Your task to perform on an android device: Go to Yahoo.com Image 0: 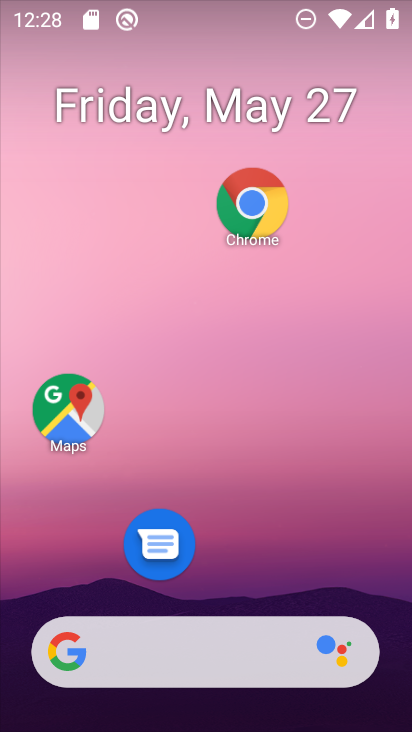
Step 0: drag from (220, 556) to (166, 86)
Your task to perform on an android device: Go to Yahoo.com Image 1: 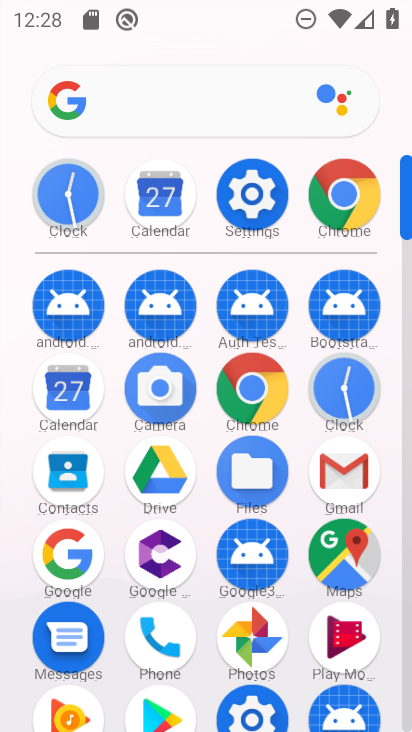
Step 1: click (173, 87)
Your task to perform on an android device: Go to Yahoo.com Image 2: 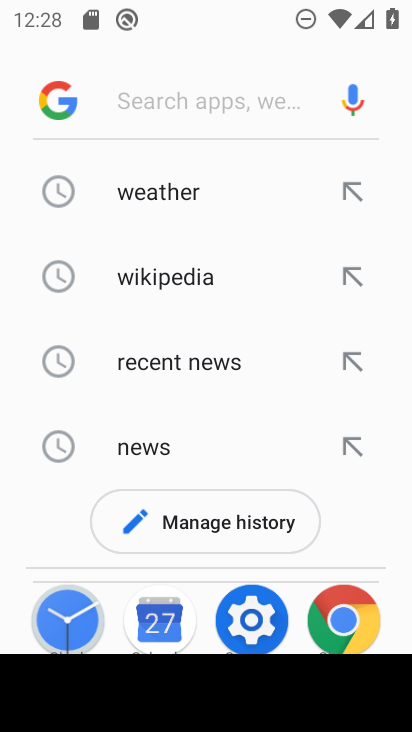
Step 2: click (122, 99)
Your task to perform on an android device: Go to Yahoo.com Image 3: 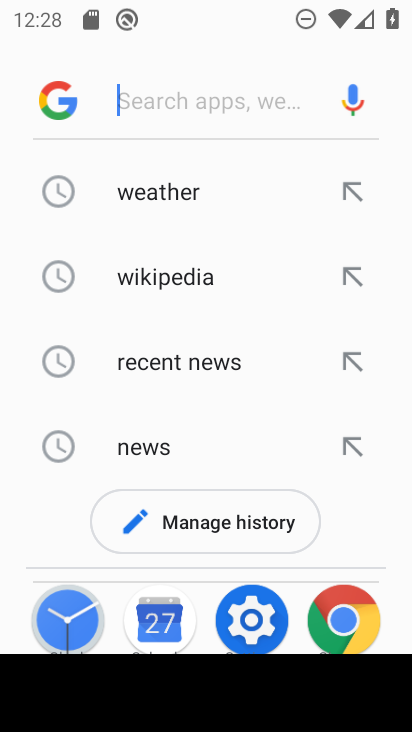
Step 3: type " Yahoo.com"
Your task to perform on an android device: Go to Yahoo.com Image 4: 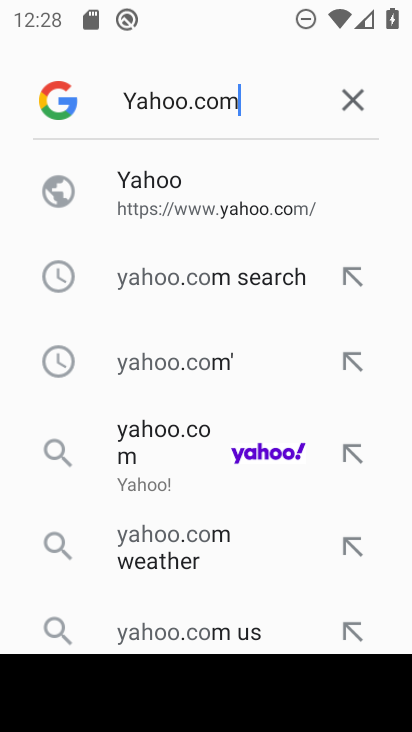
Step 4: type ""
Your task to perform on an android device: Go to Yahoo.com Image 5: 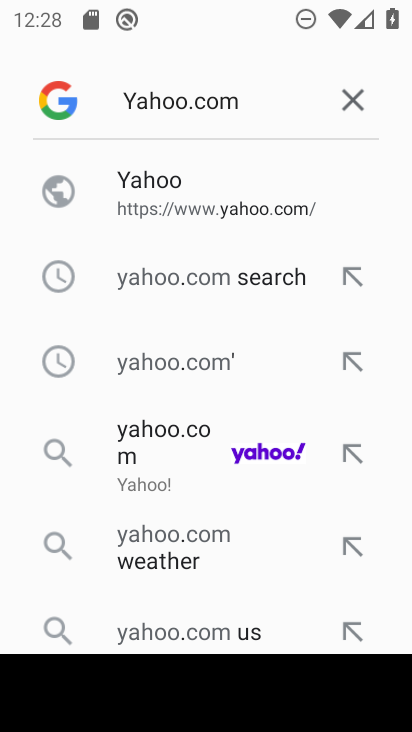
Step 5: click (155, 450)
Your task to perform on an android device: Go to Yahoo.com Image 6: 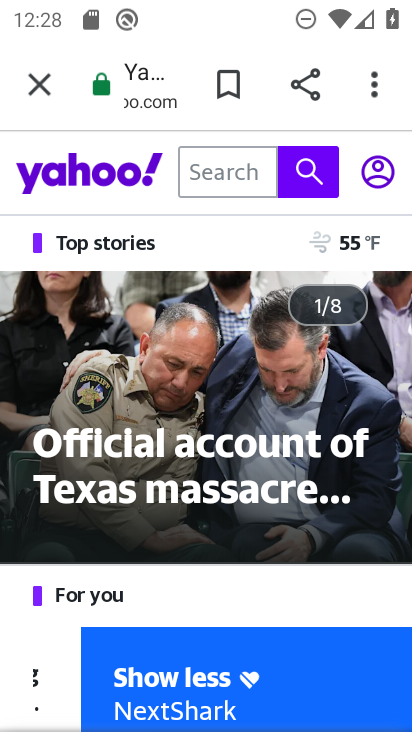
Step 6: task complete